Your task to perform on an android device: Open Amazon Image 0: 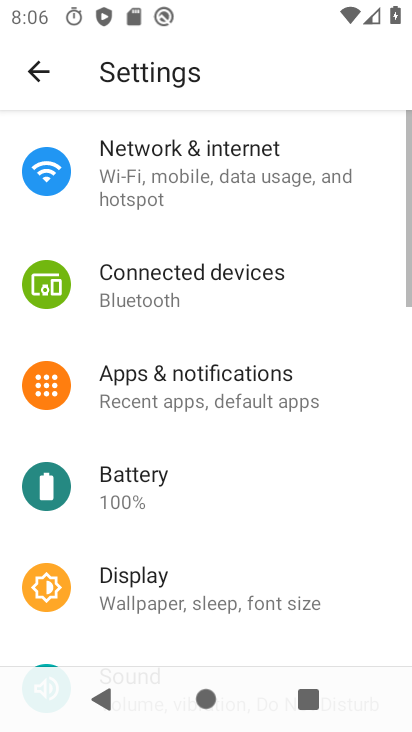
Step 0: press home button
Your task to perform on an android device: Open Amazon Image 1: 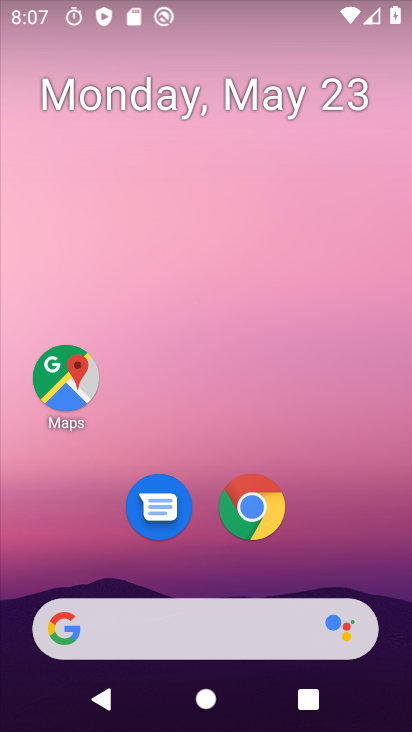
Step 1: click (250, 526)
Your task to perform on an android device: Open Amazon Image 2: 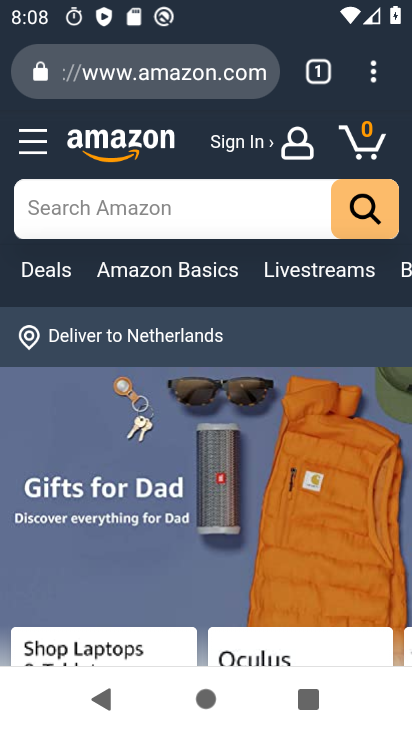
Step 2: task complete